Your task to perform on an android device: Go to internet settings Image 0: 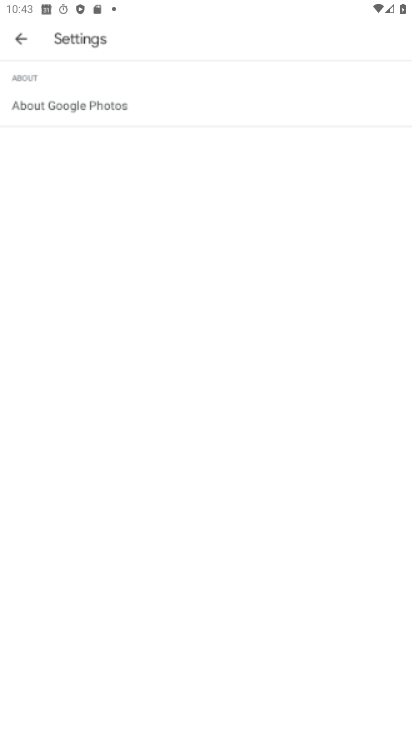
Step 0: drag from (228, 654) to (316, 421)
Your task to perform on an android device: Go to internet settings Image 1: 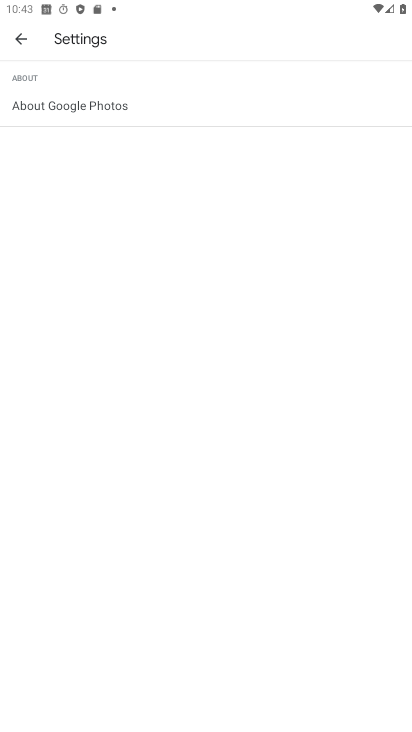
Step 1: press home button
Your task to perform on an android device: Go to internet settings Image 2: 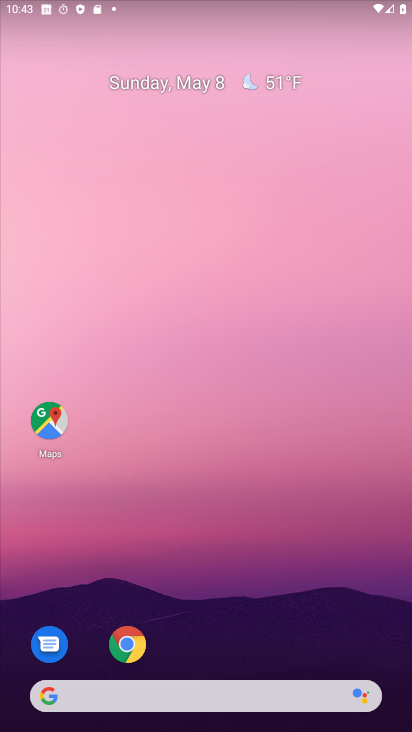
Step 2: drag from (212, 645) to (202, 0)
Your task to perform on an android device: Go to internet settings Image 3: 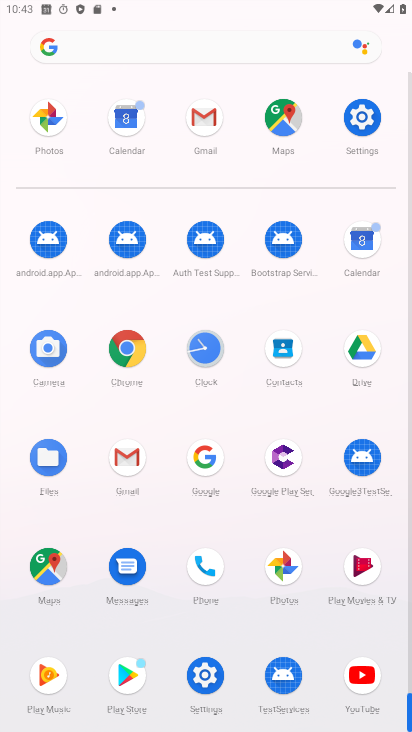
Step 3: drag from (177, 630) to (262, 157)
Your task to perform on an android device: Go to internet settings Image 4: 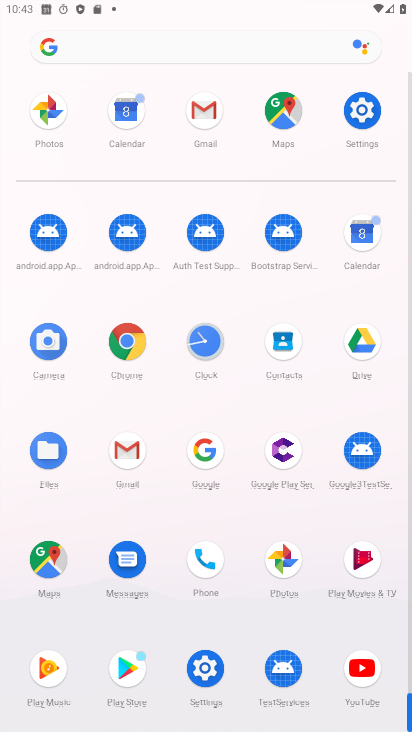
Step 4: click (205, 673)
Your task to perform on an android device: Go to internet settings Image 5: 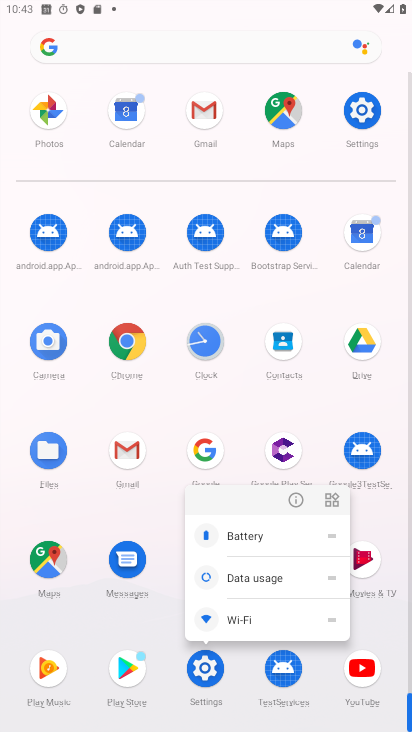
Step 5: click (286, 494)
Your task to perform on an android device: Go to internet settings Image 6: 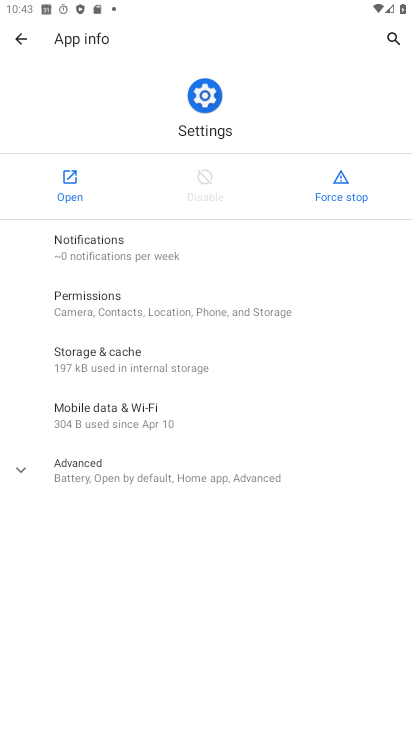
Step 6: click (68, 166)
Your task to perform on an android device: Go to internet settings Image 7: 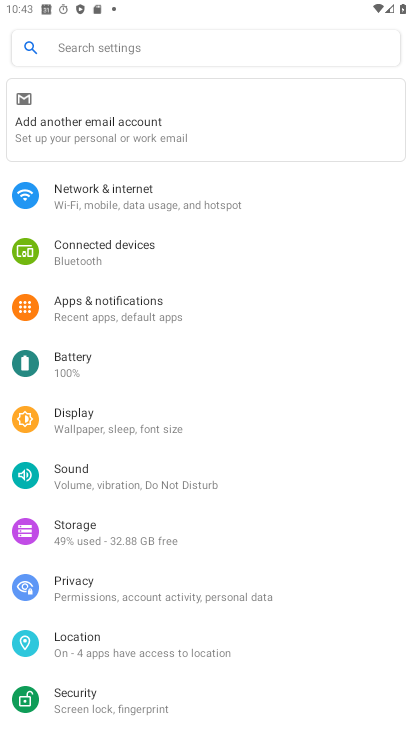
Step 7: click (163, 200)
Your task to perform on an android device: Go to internet settings Image 8: 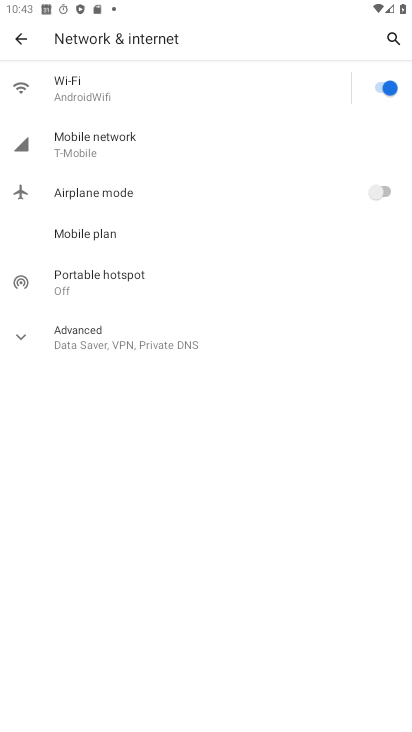
Step 8: click (131, 151)
Your task to perform on an android device: Go to internet settings Image 9: 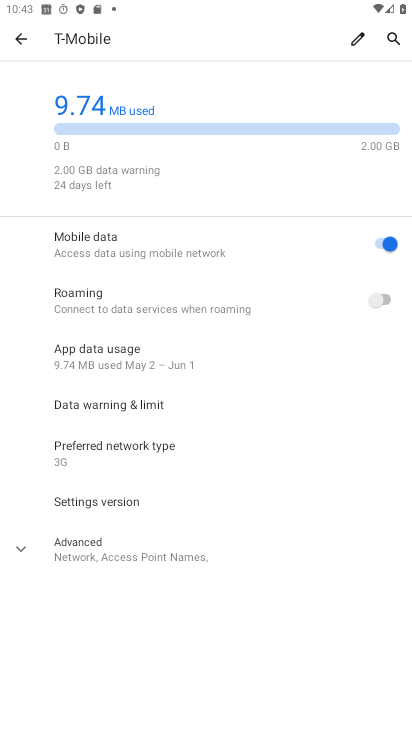
Step 9: task complete